Your task to perform on an android device: turn pop-ups off in chrome Image 0: 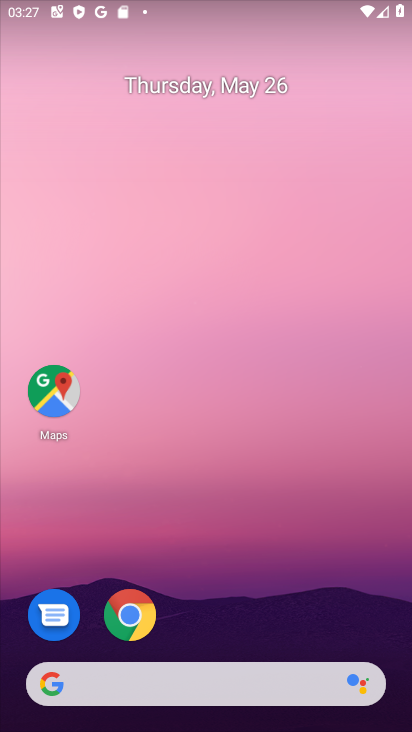
Step 0: drag from (236, 624) to (252, 97)
Your task to perform on an android device: turn pop-ups off in chrome Image 1: 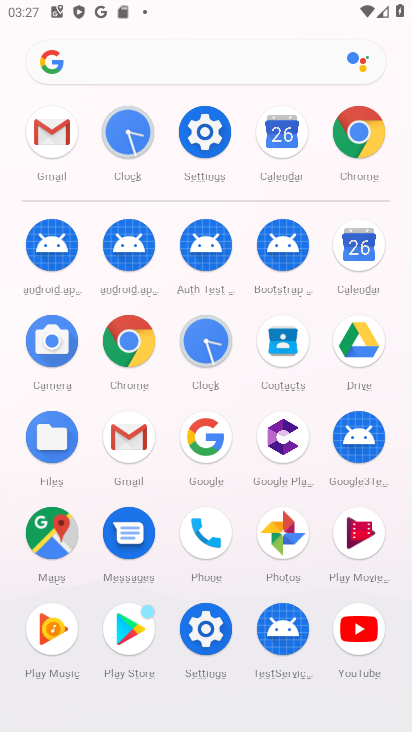
Step 1: click (125, 358)
Your task to perform on an android device: turn pop-ups off in chrome Image 2: 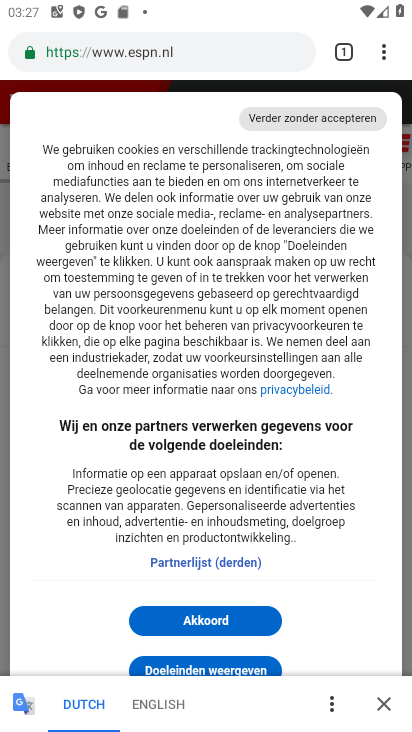
Step 2: click (381, 53)
Your task to perform on an android device: turn pop-ups off in chrome Image 3: 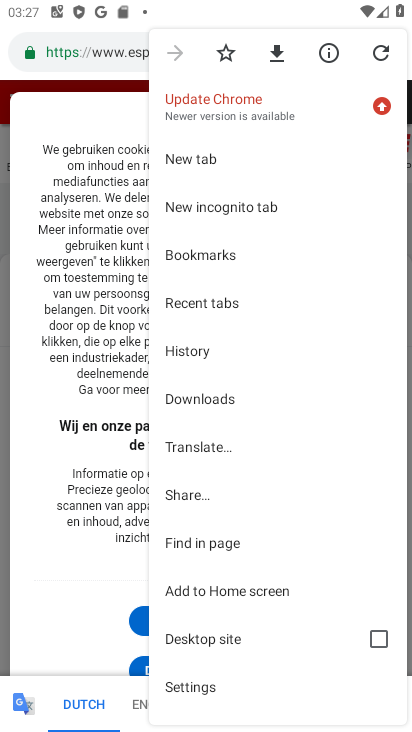
Step 3: click (201, 683)
Your task to perform on an android device: turn pop-ups off in chrome Image 4: 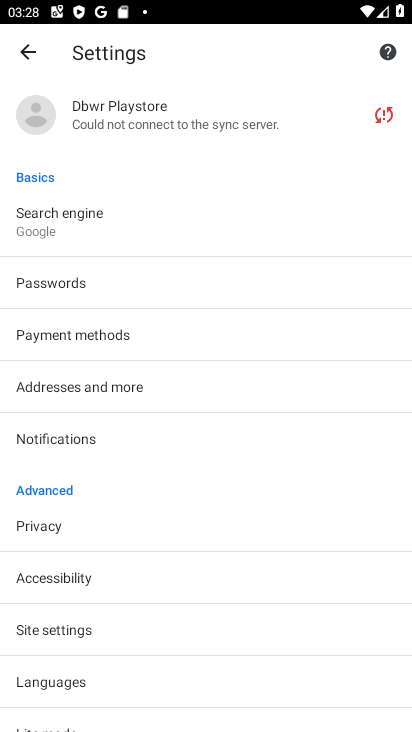
Step 4: drag from (120, 616) to (189, 246)
Your task to perform on an android device: turn pop-ups off in chrome Image 5: 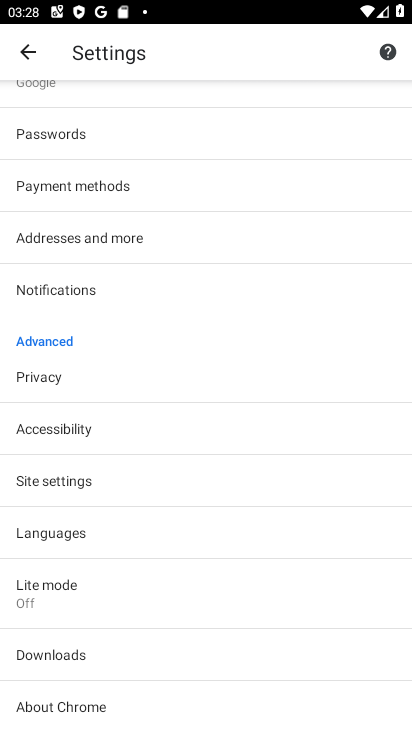
Step 5: click (71, 482)
Your task to perform on an android device: turn pop-ups off in chrome Image 6: 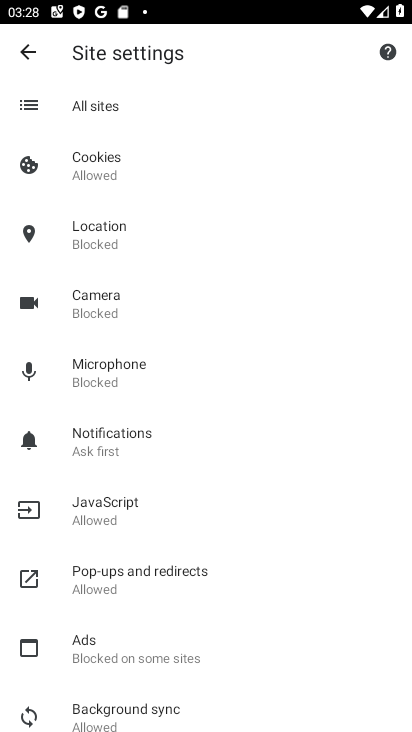
Step 6: click (102, 584)
Your task to perform on an android device: turn pop-ups off in chrome Image 7: 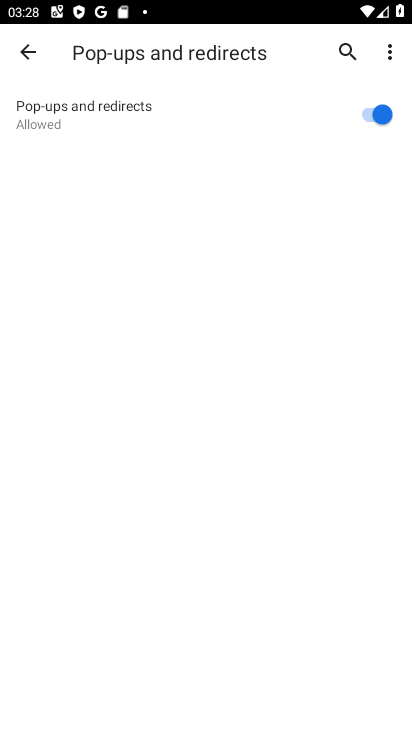
Step 7: click (374, 120)
Your task to perform on an android device: turn pop-ups off in chrome Image 8: 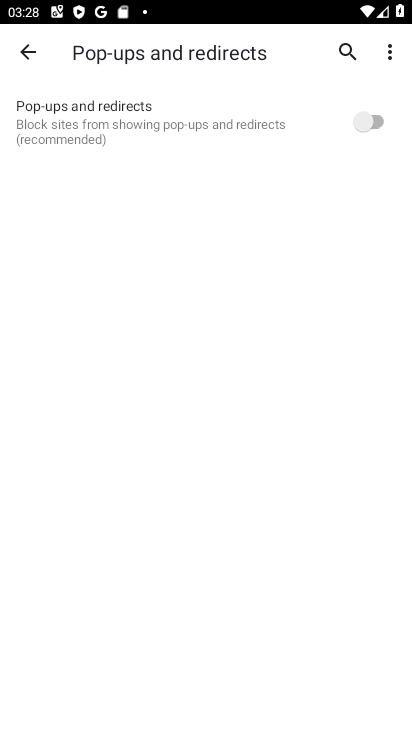
Step 8: task complete